Your task to perform on an android device: turn off picture-in-picture Image 0: 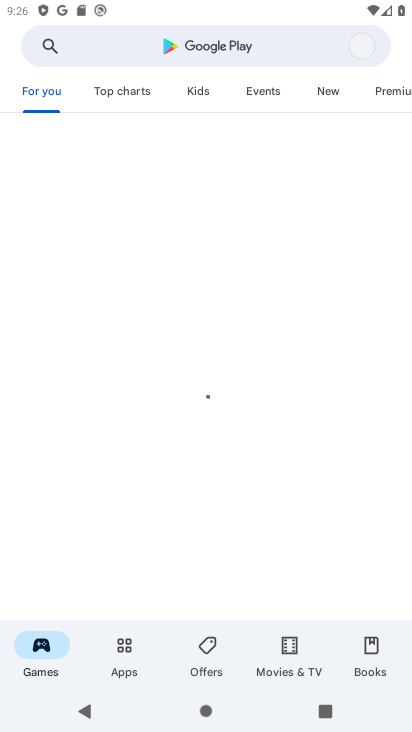
Step 0: press home button
Your task to perform on an android device: turn off picture-in-picture Image 1: 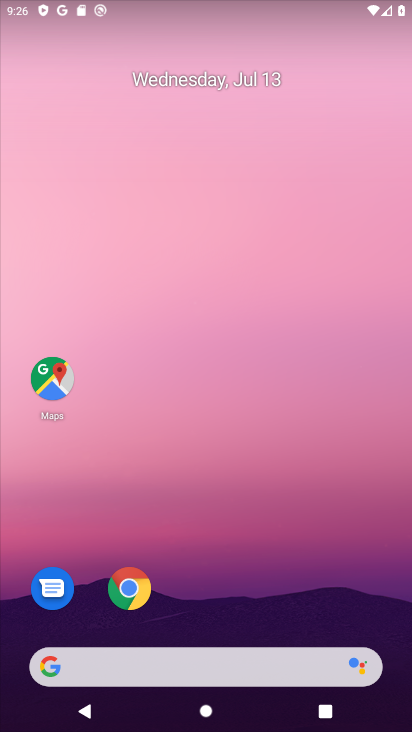
Step 1: click (133, 590)
Your task to perform on an android device: turn off picture-in-picture Image 2: 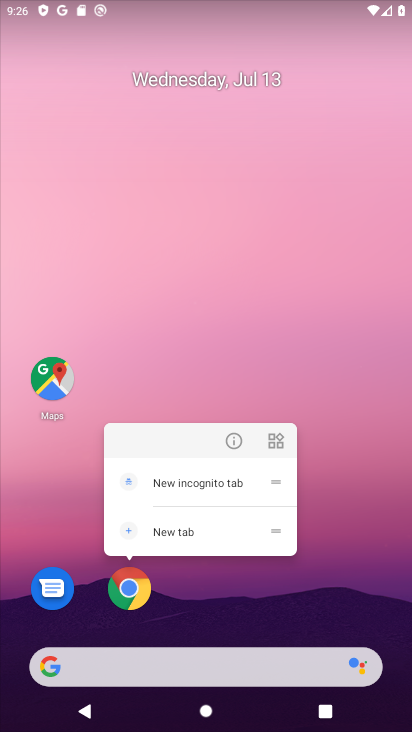
Step 2: click (225, 440)
Your task to perform on an android device: turn off picture-in-picture Image 3: 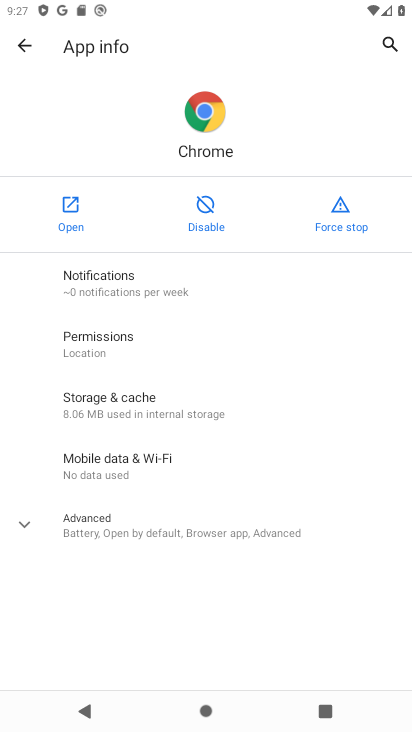
Step 3: click (90, 529)
Your task to perform on an android device: turn off picture-in-picture Image 4: 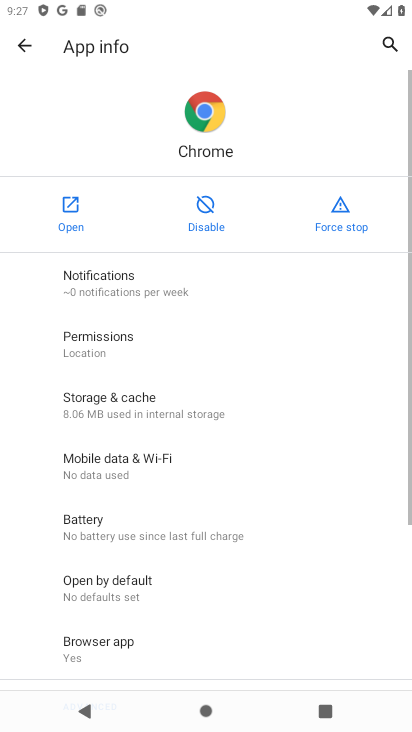
Step 4: drag from (142, 599) to (169, 176)
Your task to perform on an android device: turn off picture-in-picture Image 5: 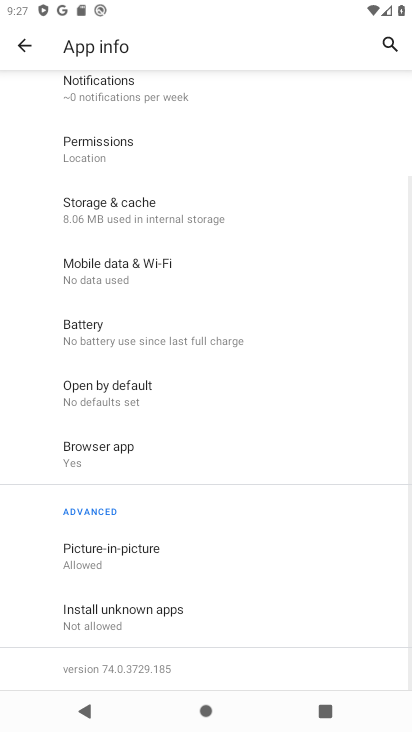
Step 5: click (128, 548)
Your task to perform on an android device: turn off picture-in-picture Image 6: 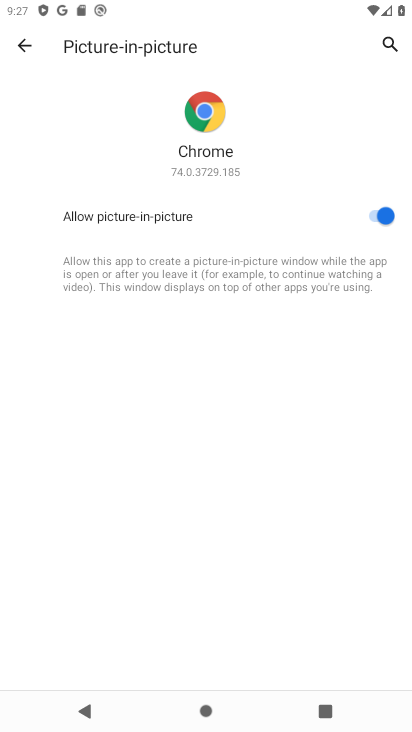
Step 6: click (376, 212)
Your task to perform on an android device: turn off picture-in-picture Image 7: 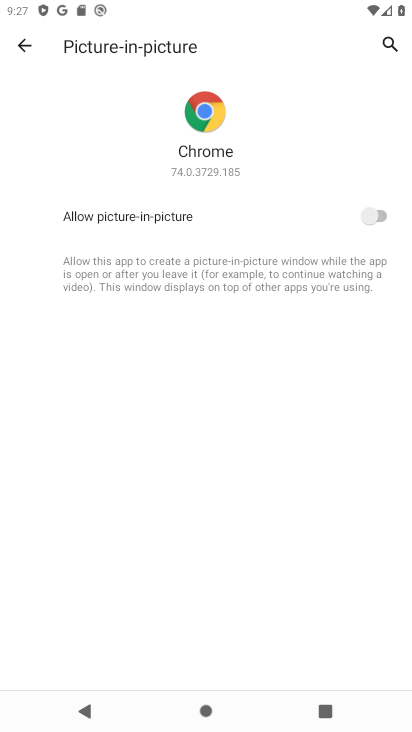
Step 7: task complete